Your task to perform on an android device: open a bookmark in the chrome app Image 0: 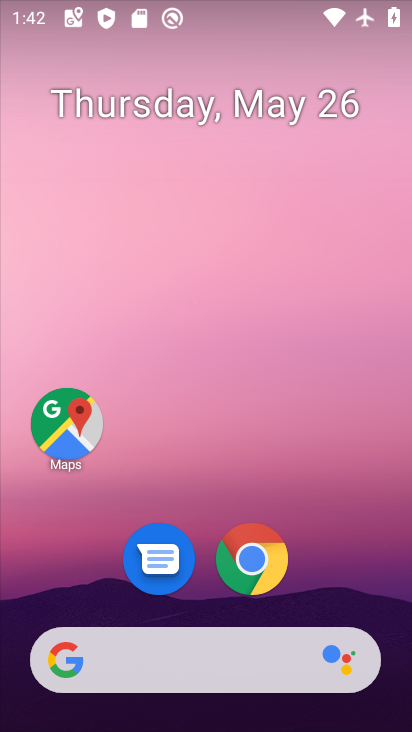
Step 0: press home button
Your task to perform on an android device: open a bookmark in the chrome app Image 1: 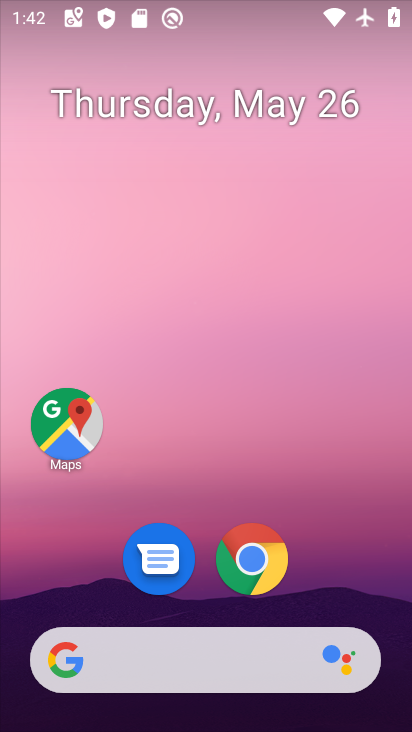
Step 1: click (254, 566)
Your task to perform on an android device: open a bookmark in the chrome app Image 2: 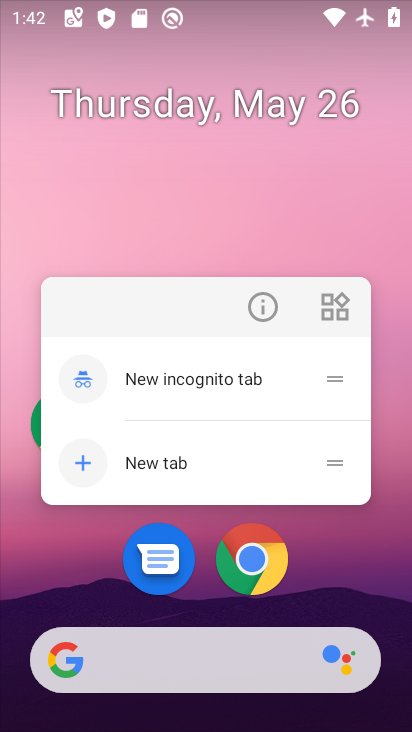
Step 2: click (261, 577)
Your task to perform on an android device: open a bookmark in the chrome app Image 3: 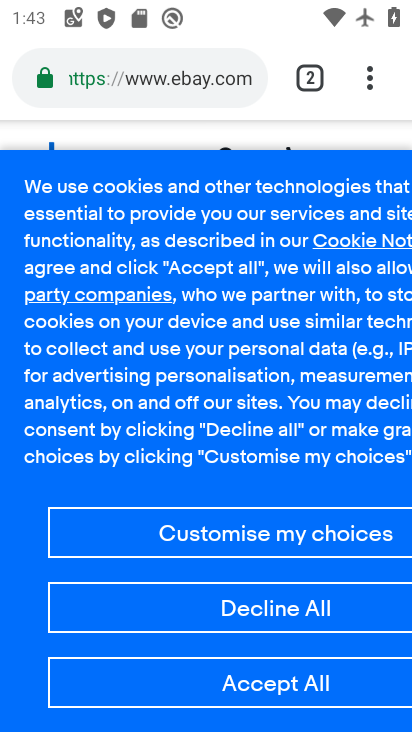
Step 3: task complete